Your task to perform on an android device: Open the phone app and click the voicemail tab. Image 0: 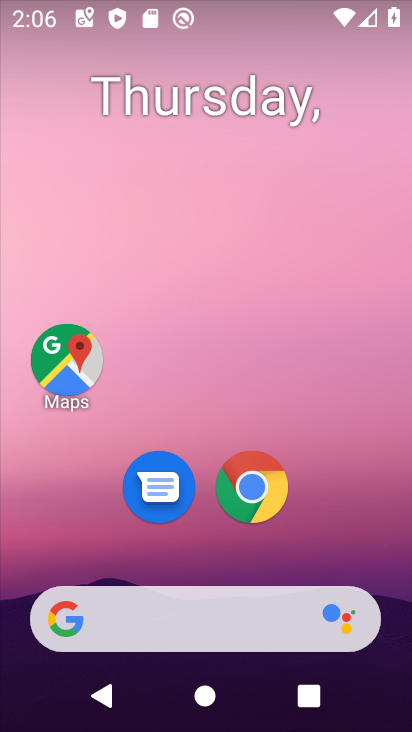
Step 0: drag from (278, 559) to (265, 62)
Your task to perform on an android device: Open the phone app and click the voicemail tab. Image 1: 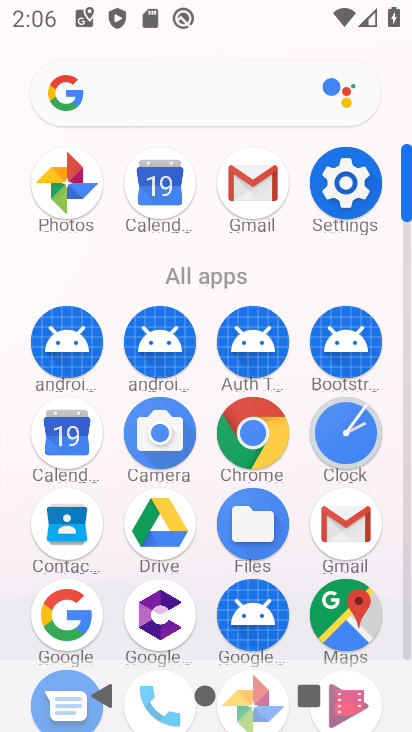
Step 1: drag from (192, 579) to (202, 293)
Your task to perform on an android device: Open the phone app and click the voicemail tab. Image 2: 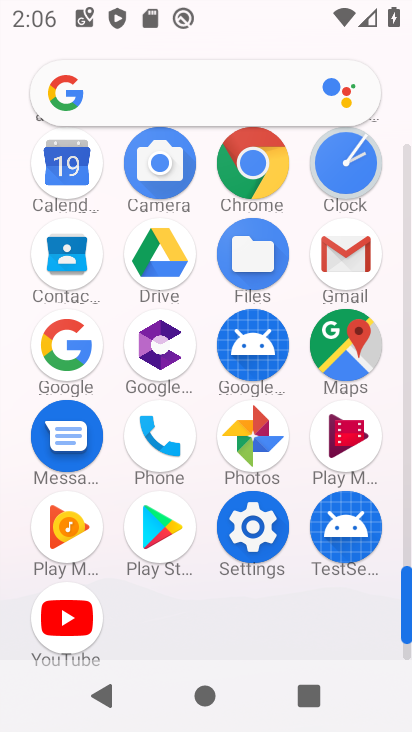
Step 2: click (156, 439)
Your task to perform on an android device: Open the phone app and click the voicemail tab. Image 3: 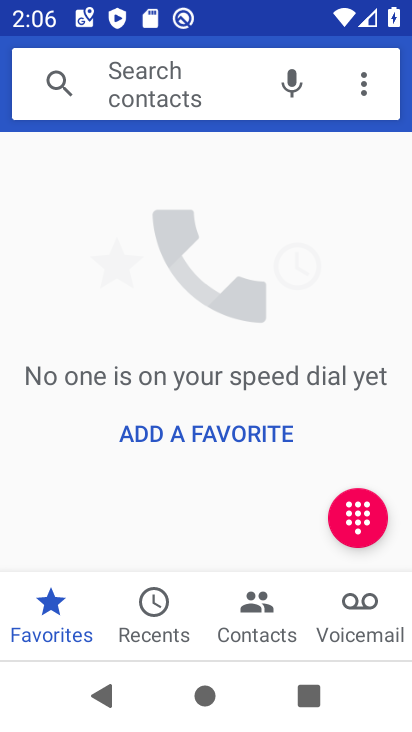
Step 3: click (343, 630)
Your task to perform on an android device: Open the phone app and click the voicemail tab. Image 4: 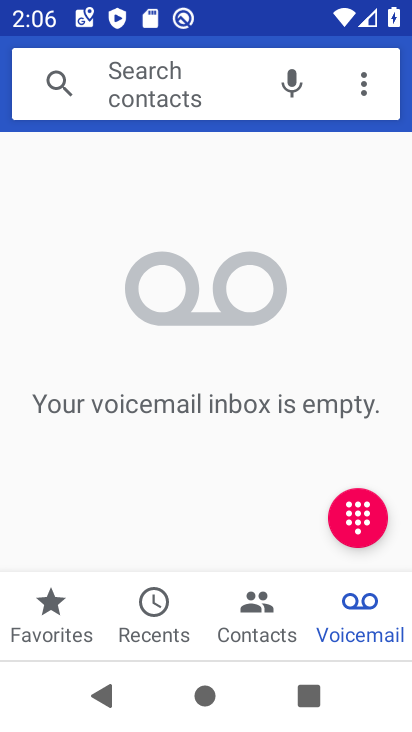
Step 4: task complete